Your task to perform on an android device: Open maps Image 0: 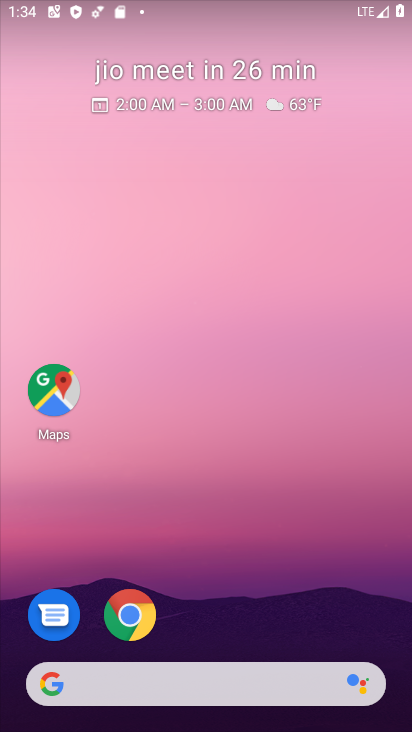
Step 0: click (42, 389)
Your task to perform on an android device: Open maps Image 1: 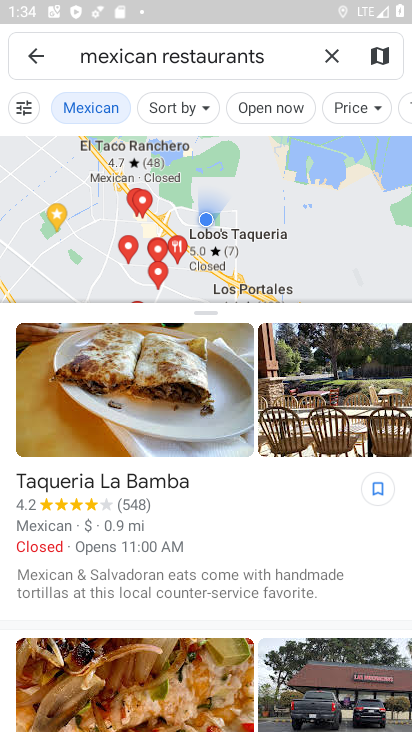
Step 1: task complete